Your task to perform on an android device: Show me the alarms in the clock app Image 0: 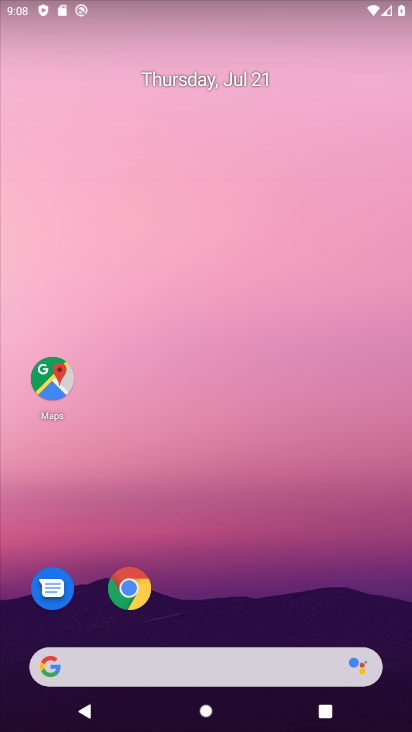
Step 0: drag from (404, 709) to (362, 154)
Your task to perform on an android device: Show me the alarms in the clock app Image 1: 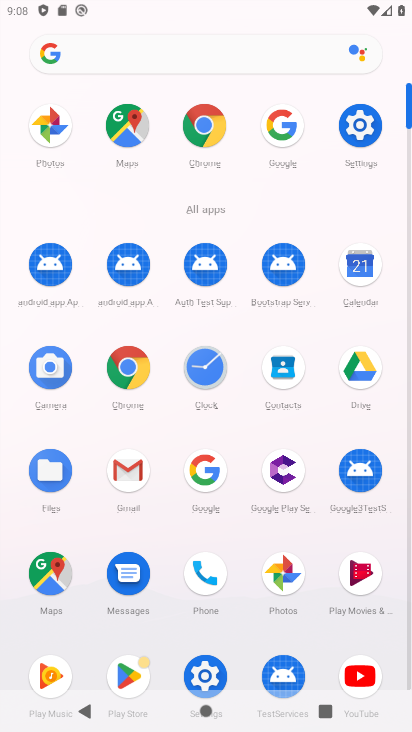
Step 1: click (216, 371)
Your task to perform on an android device: Show me the alarms in the clock app Image 2: 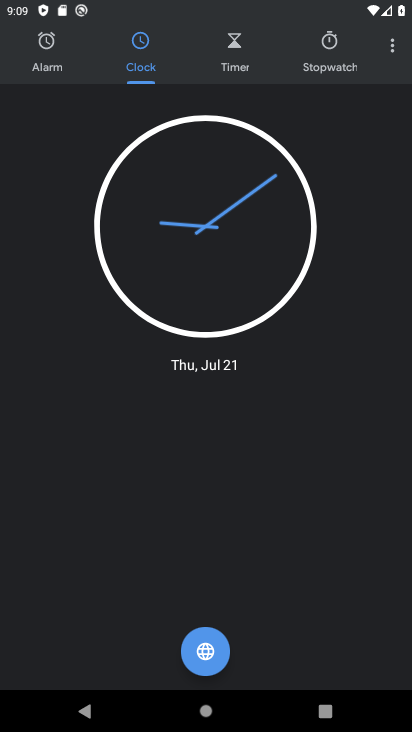
Step 2: click (55, 59)
Your task to perform on an android device: Show me the alarms in the clock app Image 3: 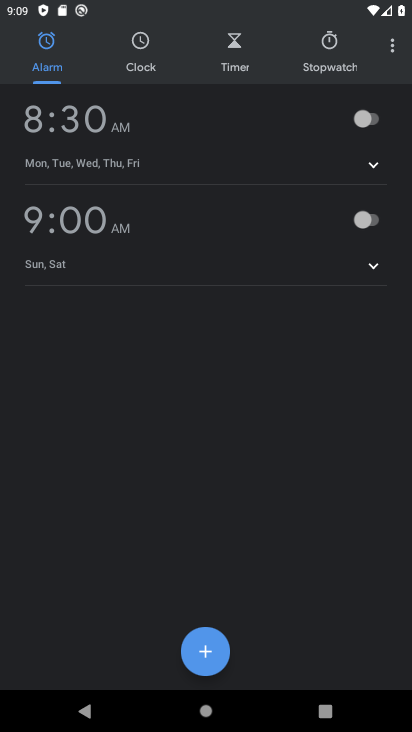
Step 3: task complete